Your task to perform on an android device: remove spam from my inbox in the gmail app Image 0: 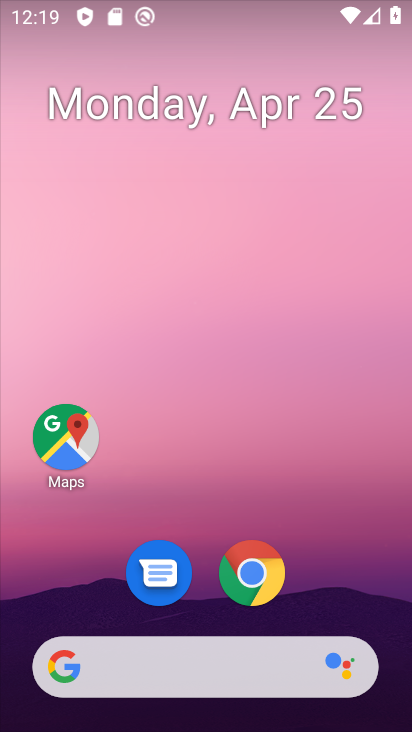
Step 0: drag from (374, 564) to (308, 73)
Your task to perform on an android device: remove spam from my inbox in the gmail app Image 1: 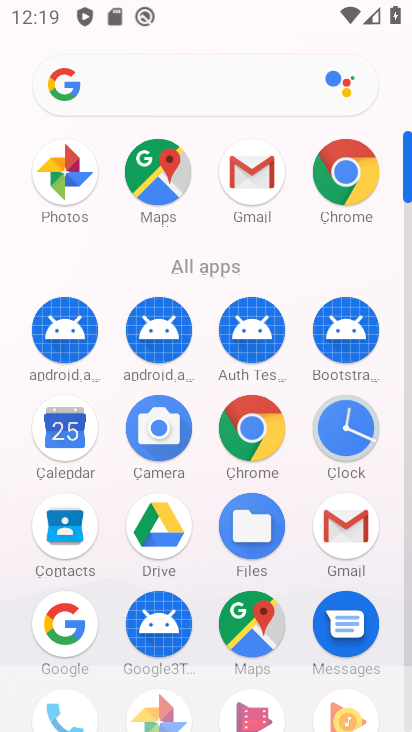
Step 1: drag from (223, 284) to (193, 91)
Your task to perform on an android device: remove spam from my inbox in the gmail app Image 2: 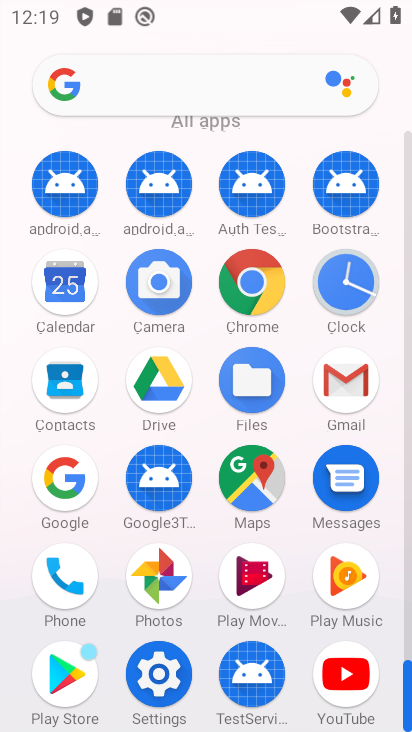
Step 2: click (351, 382)
Your task to perform on an android device: remove spam from my inbox in the gmail app Image 3: 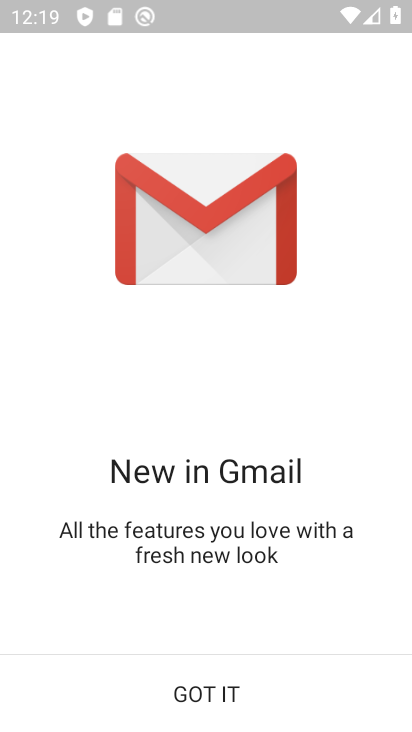
Step 3: click (240, 712)
Your task to perform on an android device: remove spam from my inbox in the gmail app Image 4: 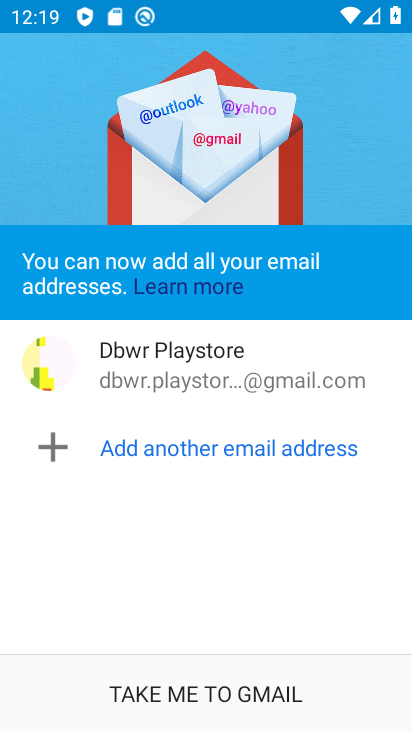
Step 4: click (228, 702)
Your task to perform on an android device: remove spam from my inbox in the gmail app Image 5: 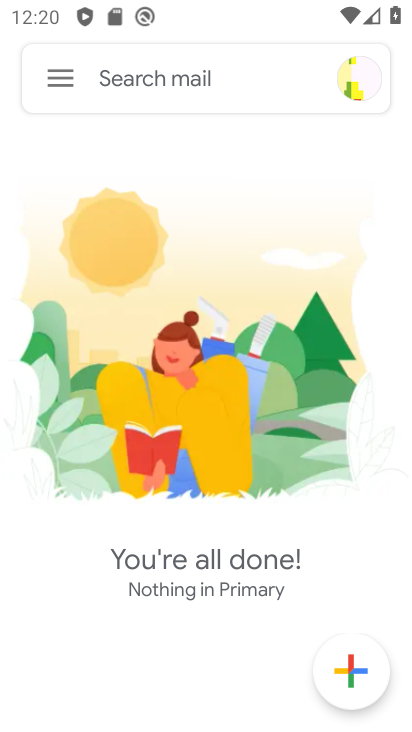
Step 5: click (62, 90)
Your task to perform on an android device: remove spam from my inbox in the gmail app Image 6: 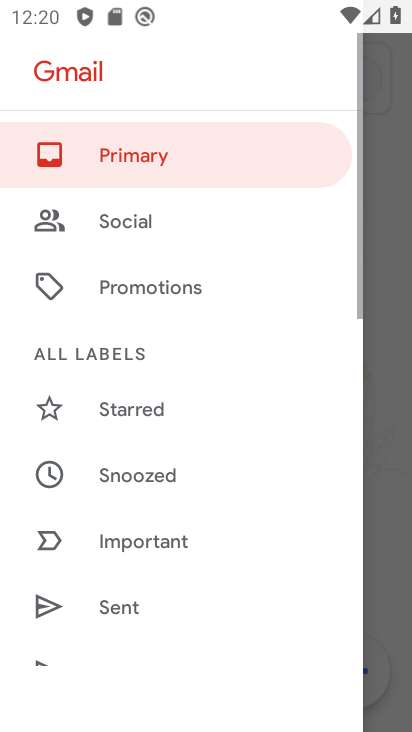
Step 6: drag from (174, 571) to (134, 97)
Your task to perform on an android device: remove spam from my inbox in the gmail app Image 7: 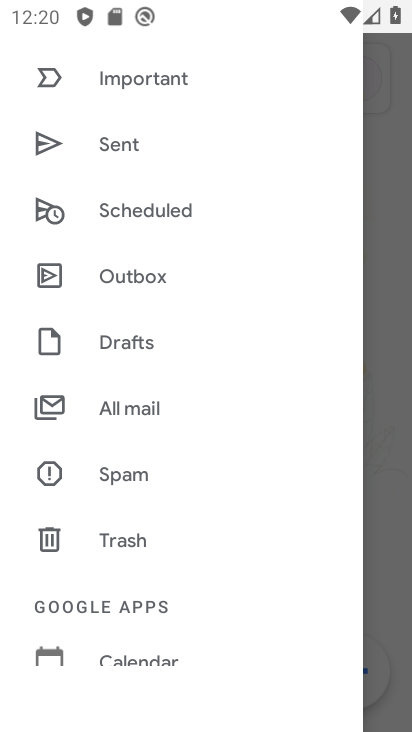
Step 7: click (143, 482)
Your task to perform on an android device: remove spam from my inbox in the gmail app Image 8: 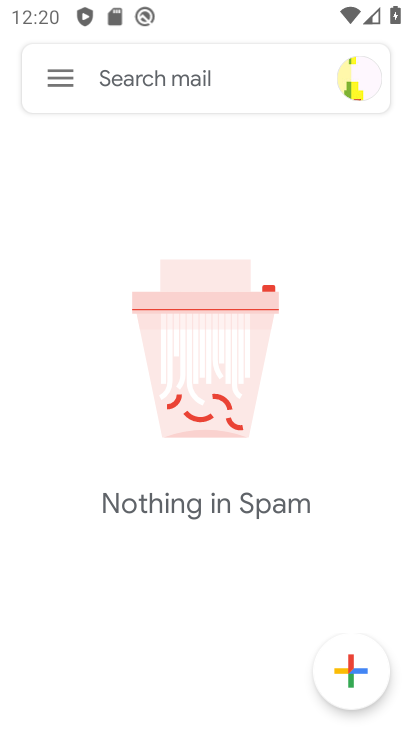
Step 8: task complete